Your task to perform on an android device: Go to location settings Image 0: 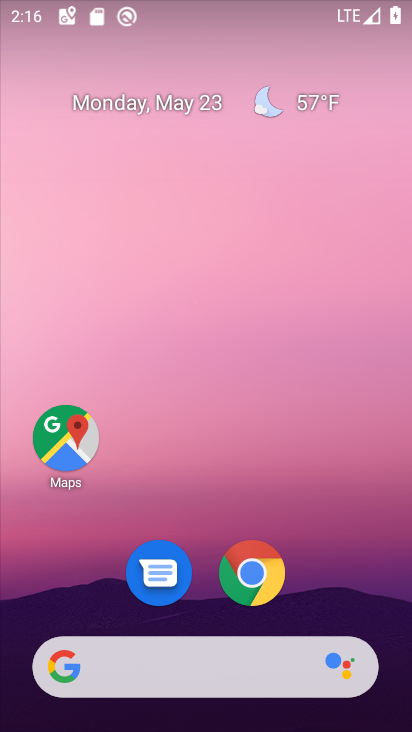
Step 0: drag from (323, 607) to (286, 11)
Your task to perform on an android device: Go to location settings Image 1: 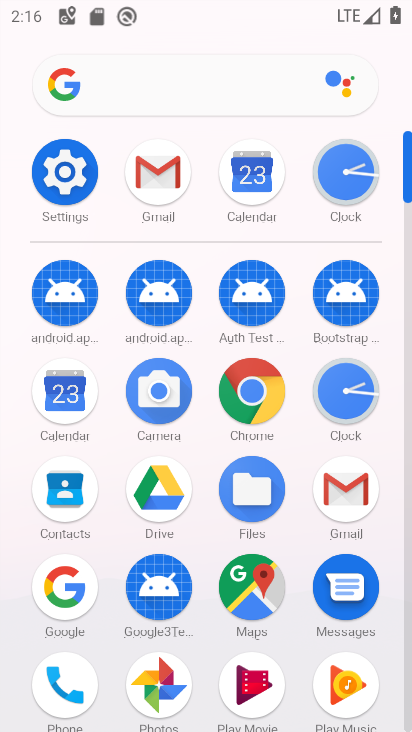
Step 1: click (68, 169)
Your task to perform on an android device: Go to location settings Image 2: 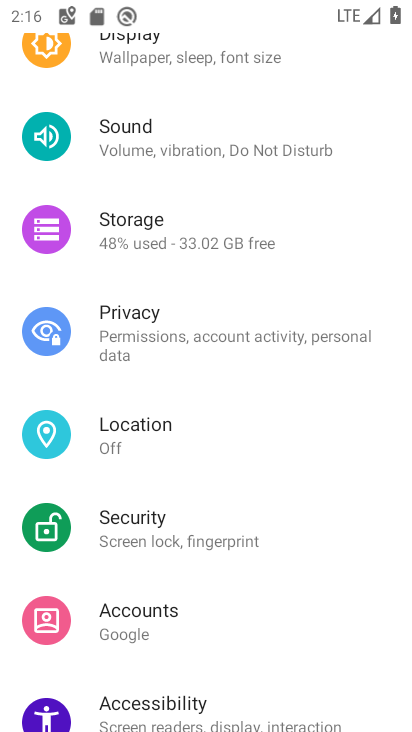
Step 2: click (107, 444)
Your task to perform on an android device: Go to location settings Image 3: 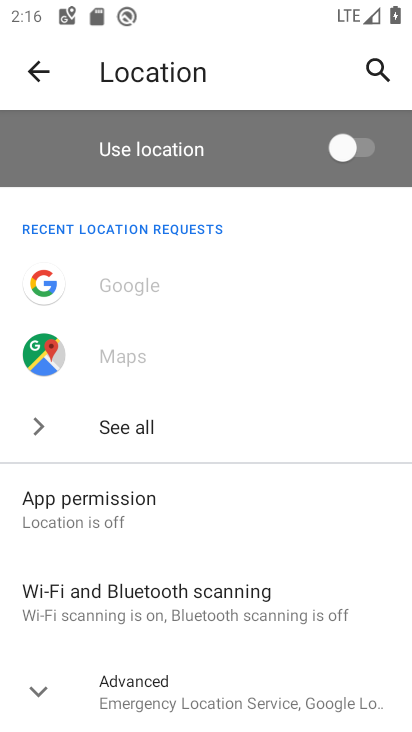
Step 3: task complete